Your task to perform on an android device: Open Wikipedia Image 0: 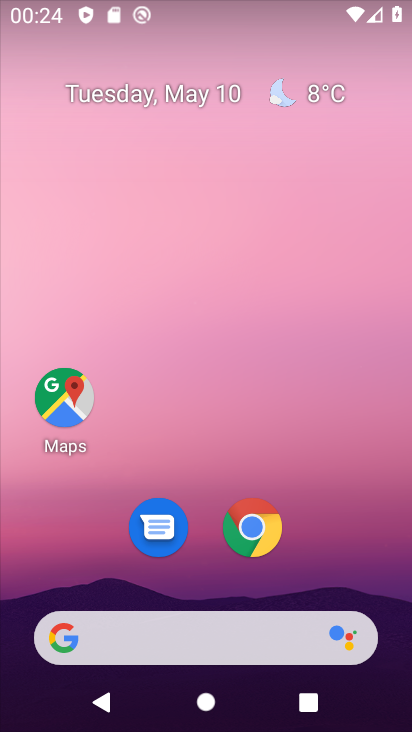
Step 0: click (263, 535)
Your task to perform on an android device: Open Wikipedia Image 1: 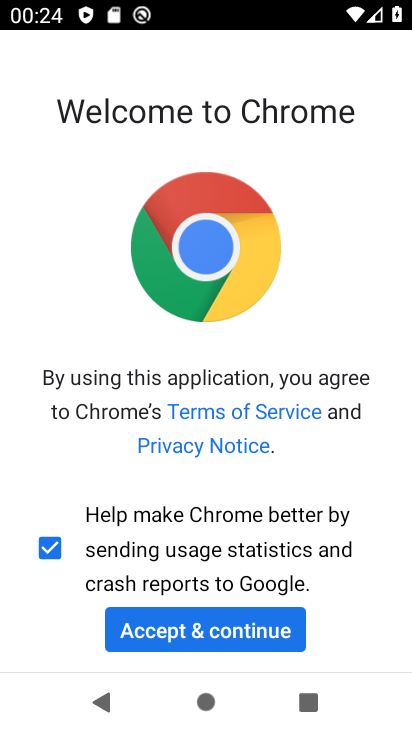
Step 1: click (237, 619)
Your task to perform on an android device: Open Wikipedia Image 2: 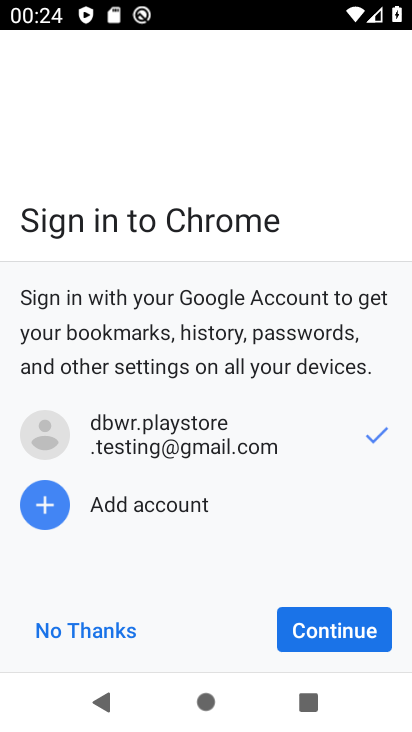
Step 2: click (349, 624)
Your task to perform on an android device: Open Wikipedia Image 3: 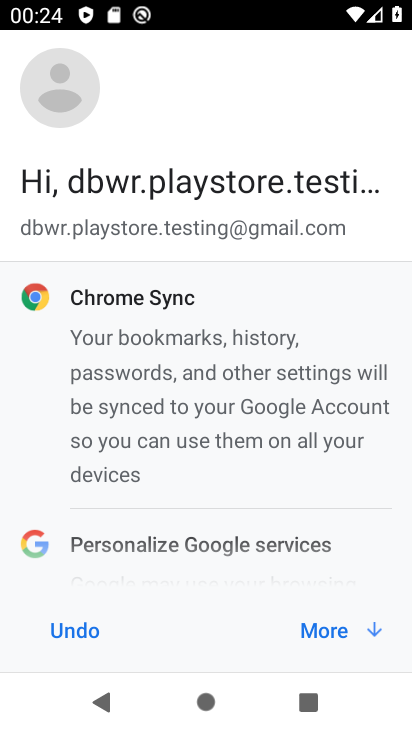
Step 3: click (345, 630)
Your task to perform on an android device: Open Wikipedia Image 4: 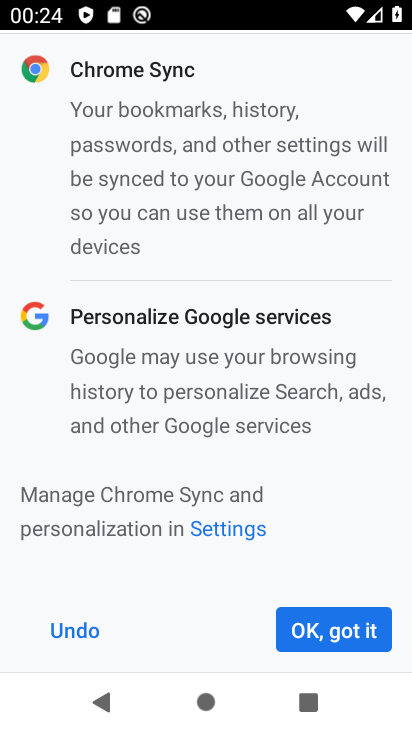
Step 4: click (345, 630)
Your task to perform on an android device: Open Wikipedia Image 5: 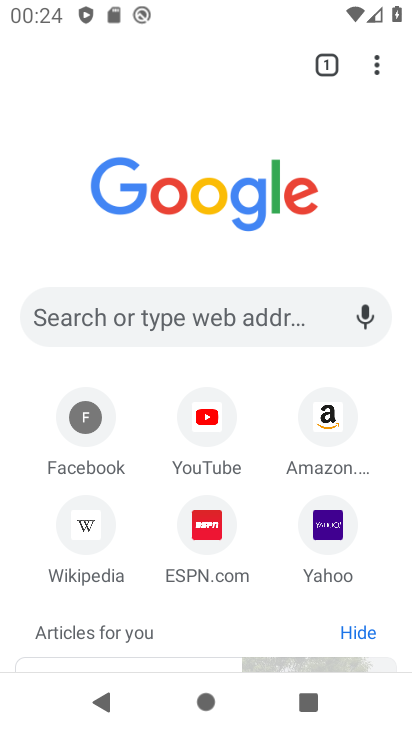
Step 5: click (88, 519)
Your task to perform on an android device: Open Wikipedia Image 6: 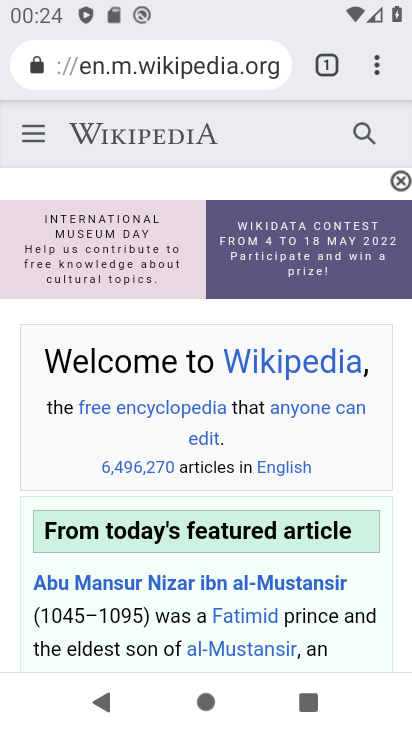
Step 6: task complete